Your task to perform on an android device: turn notification dots on Image 0: 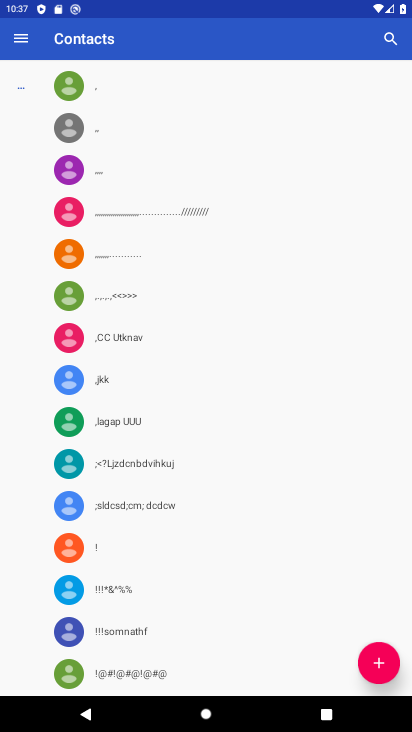
Step 0: press home button
Your task to perform on an android device: turn notification dots on Image 1: 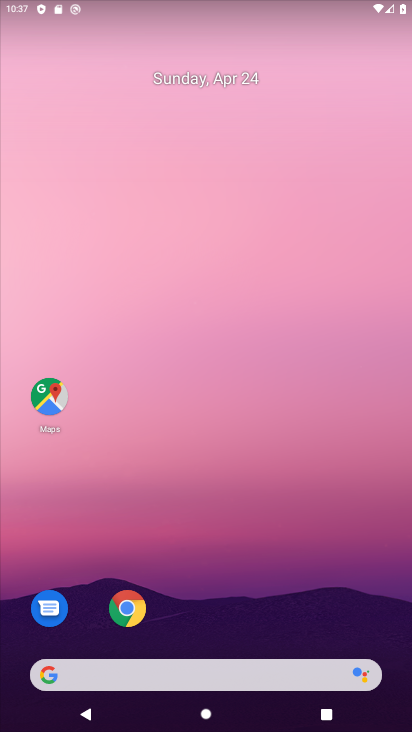
Step 1: drag from (394, 655) to (293, 89)
Your task to perform on an android device: turn notification dots on Image 2: 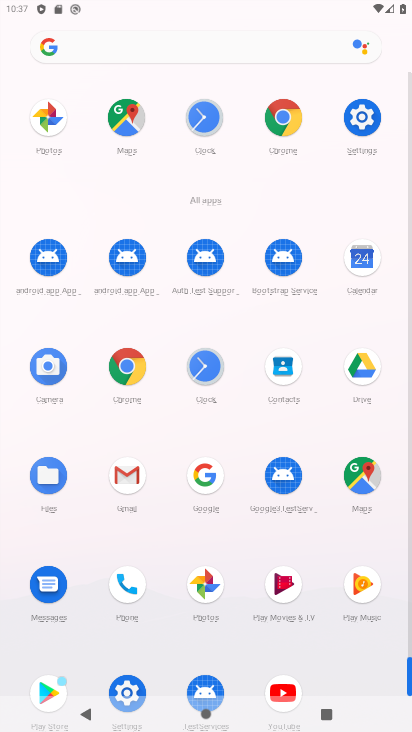
Step 2: click (410, 645)
Your task to perform on an android device: turn notification dots on Image 3: 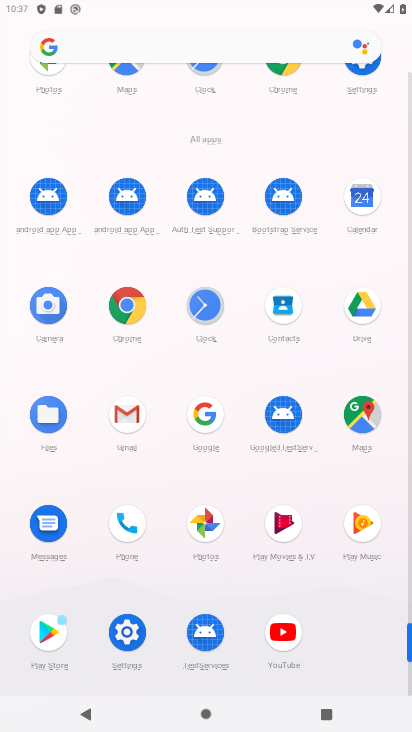
Step 3: click (124, 630)
Your task to perform on an android device: turn notification dots on Image 4: 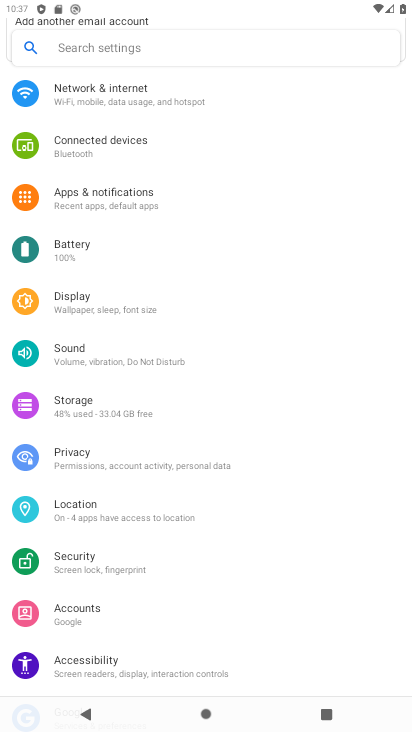
Step 4: click (113, 194)
Your task to perform on an android device: turn notification dots on Image 5: 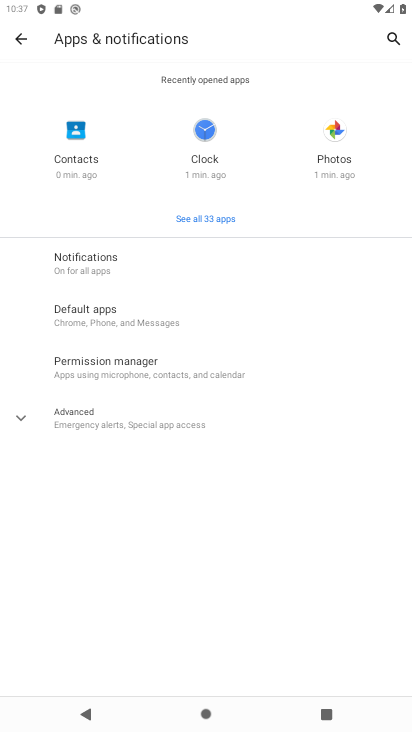
Step 5: click (67, 262)
Your task to perform on an android device: turn notification dots on Image 6: 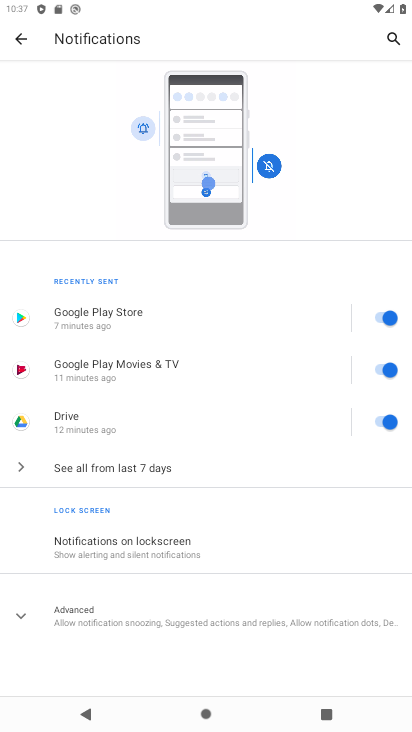
Step 6: drag from (289, 579) to (302, 203)
Your task to perform on an android device: turn notification dots on Image 7: 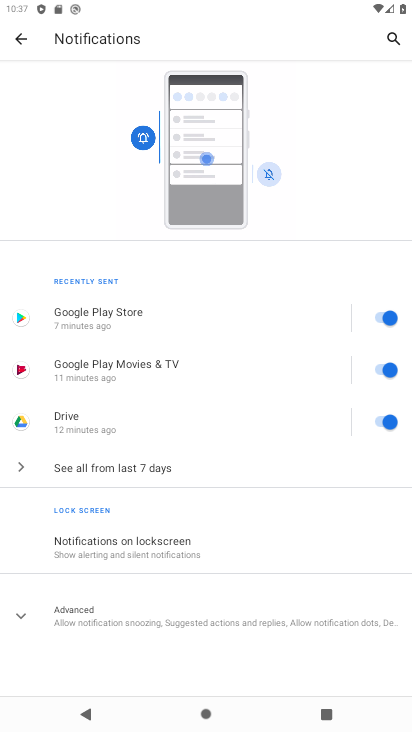
Step 7: click (12, 612)
Your task to perform on an android device: turn notification dots on Image 8: 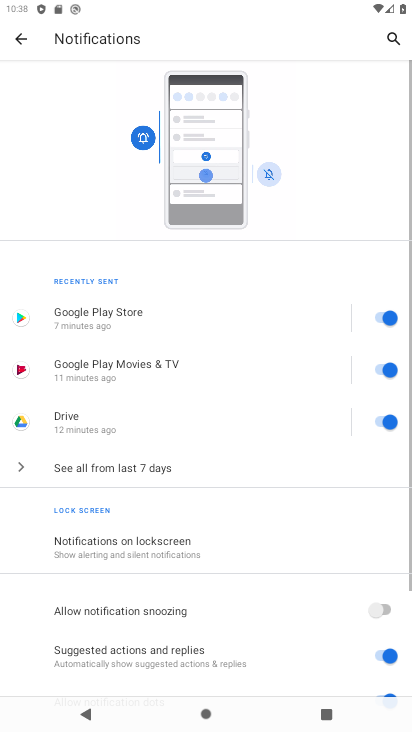
Step 8: task complete